Your task to perform on an android device: Add "energizer triple a" to the cart on walmart Image 0: 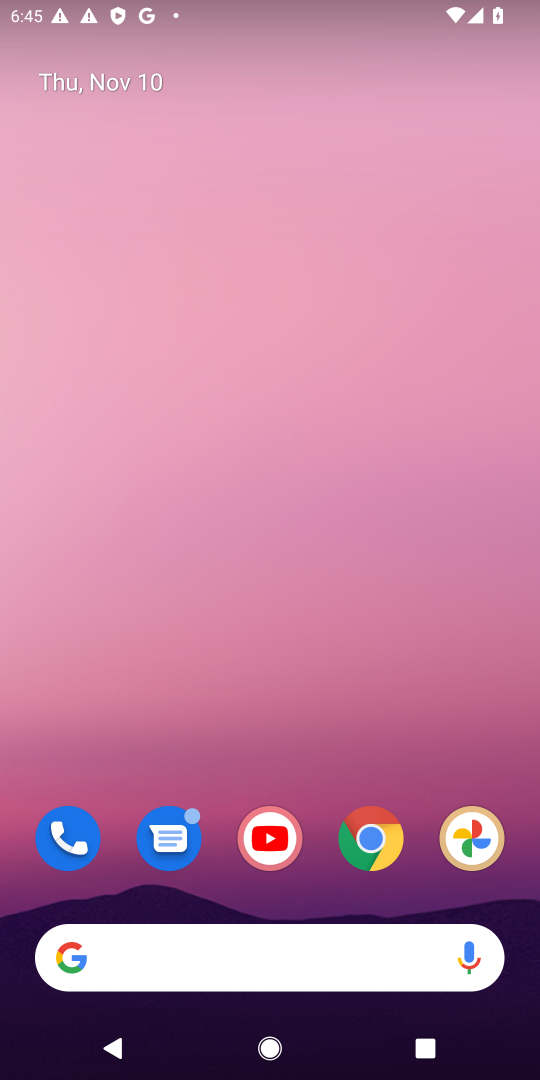
Step 0: drag from (328, 910) to (522, 127)
Your task to perform on an android device: Add "energizer triple a" to the cart on walmart Image 1: 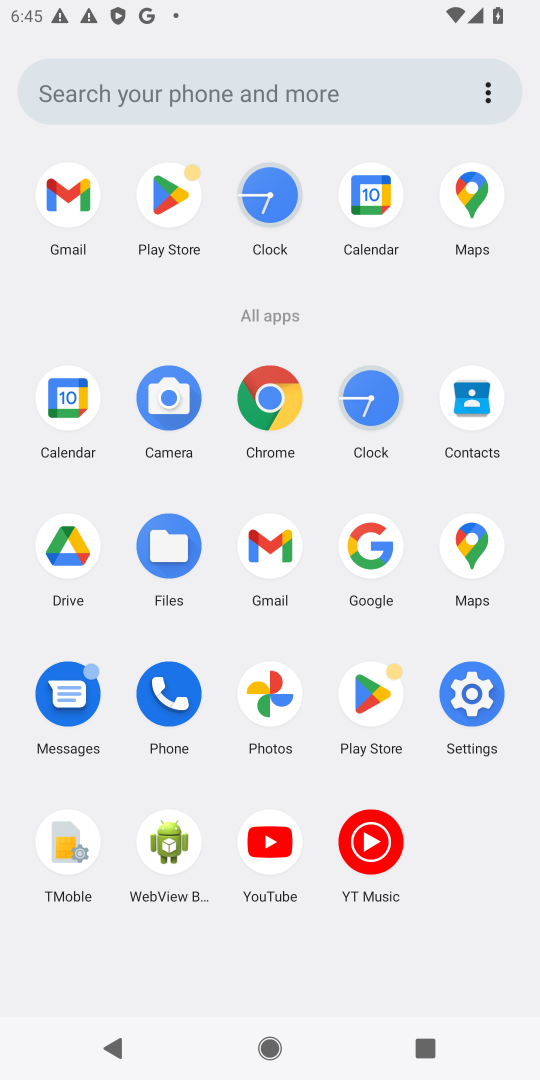
Step 1: click (274, 399)
Your task to perform on an android device: Add "energizer triple a" to the cart on walmart Image 2: 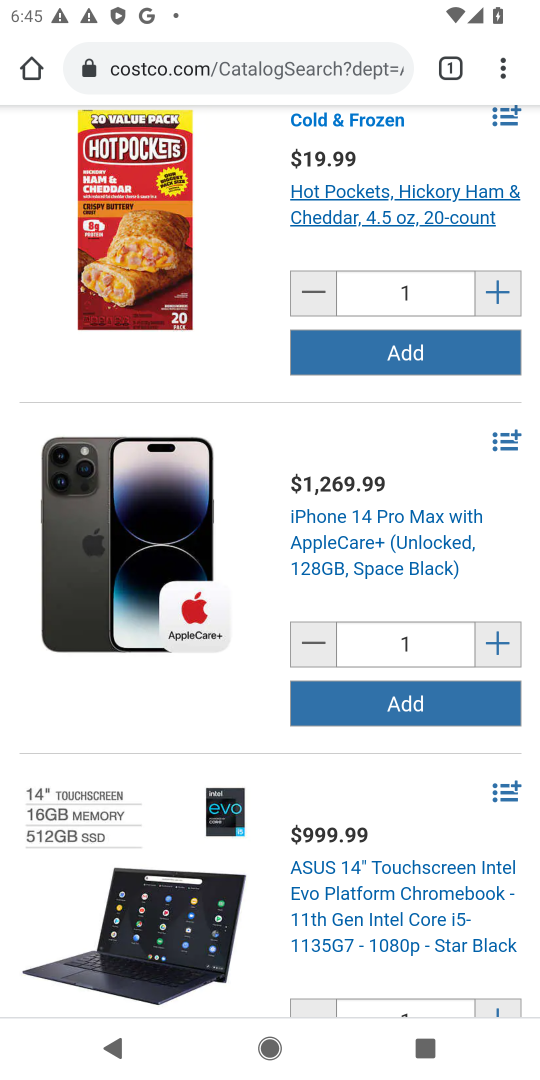
Step 2: click (271, 61)
Your task to perform on an android device: Add "energizer triple a" to the cart on walmart Image 3: 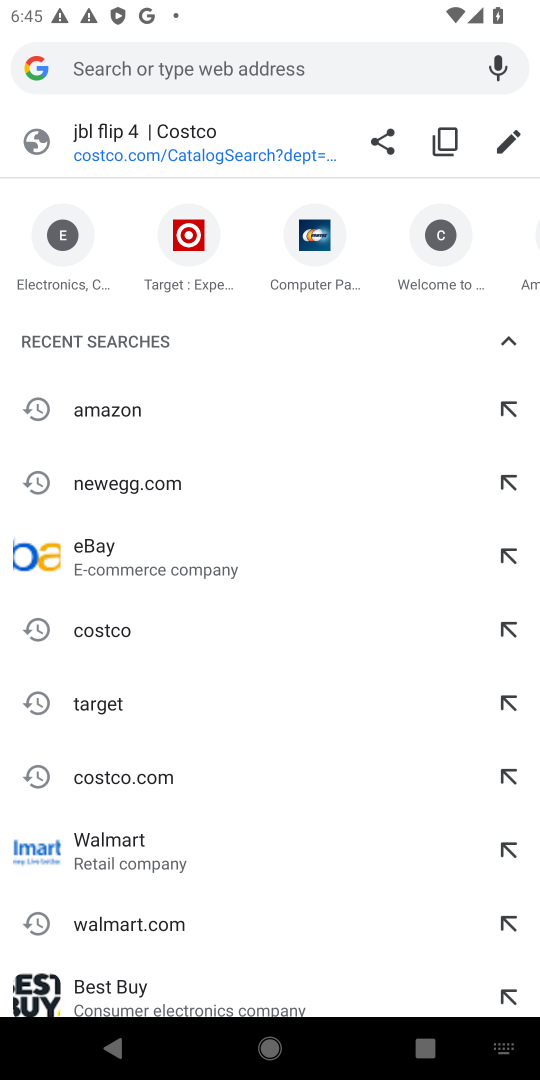
Step 3: type "walmart.com"
Your task to perform on an android device: Add "energizer triple a" to the cart on walmart Image 4: 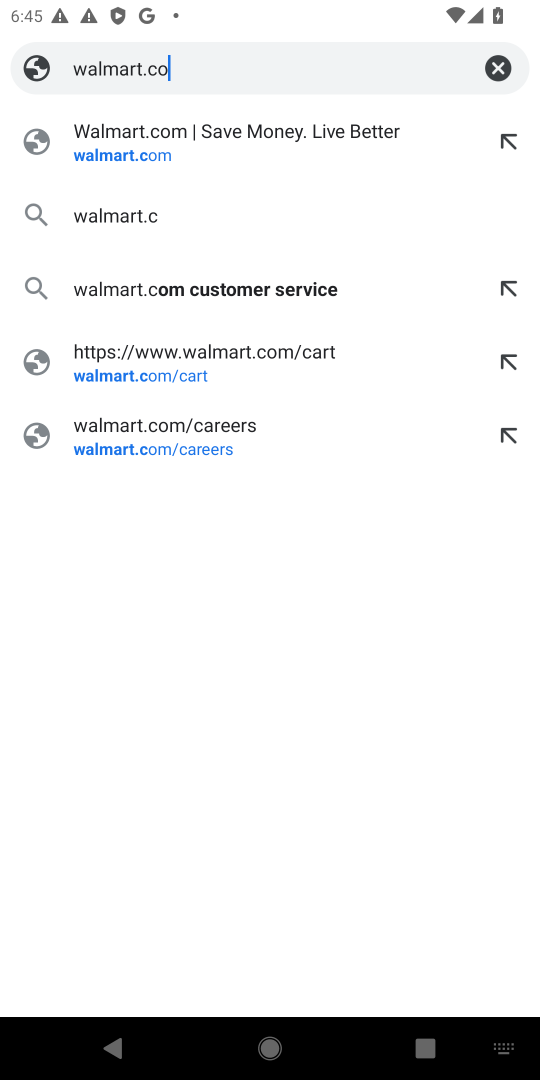
Step 4: press enter
Your task to perform on an android device: Add "energizer triple a" to the cart on walmart Image 5: 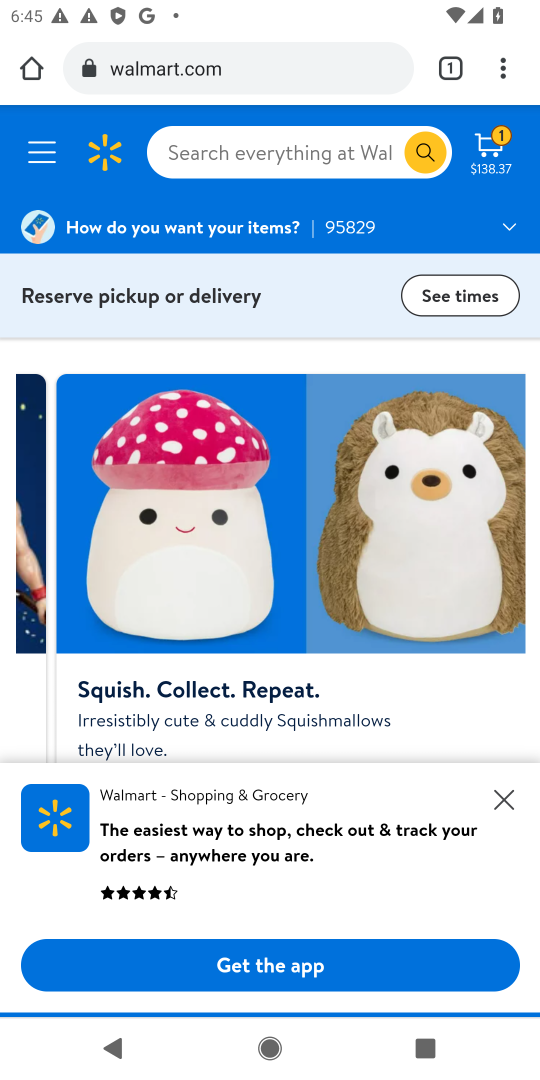
Step 5: click (265, 169)
Your task to perform on an android device: Add "energizer triple a" to the cart on walmart Image 6: 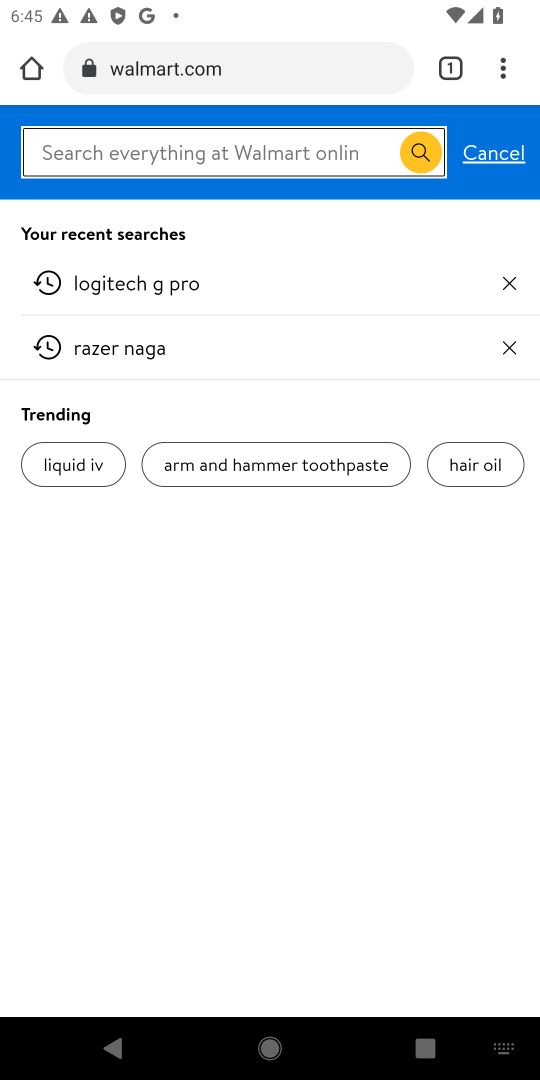
Step 6: type "energizer triple"
Your task to perform on an android device: Add "energizer triple a" to the cart on walmart Image 7: 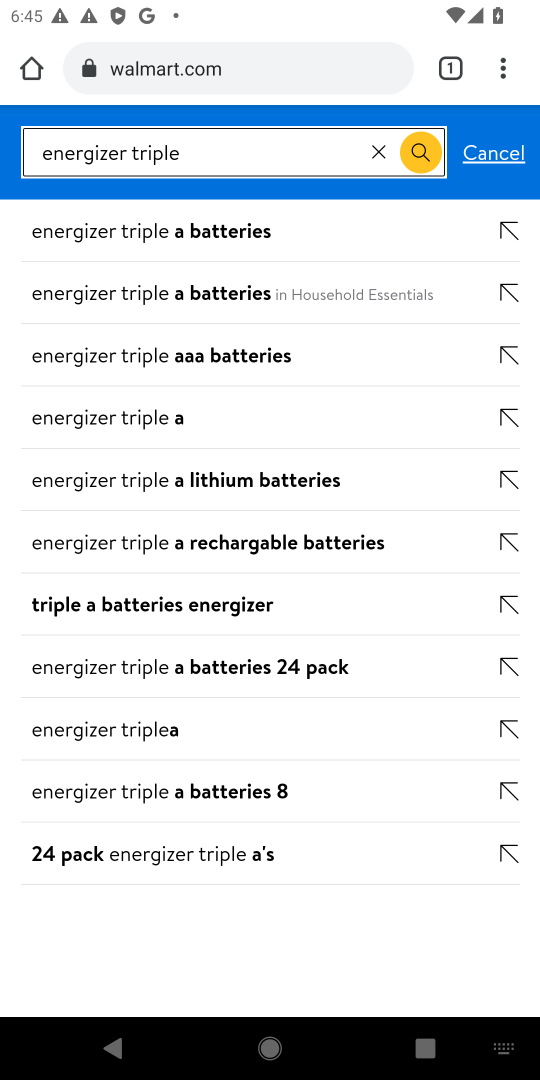
Step 7: press enter
Your task to perform on an android device: Add "energizer triple a" to the cart on walmart Image 8: 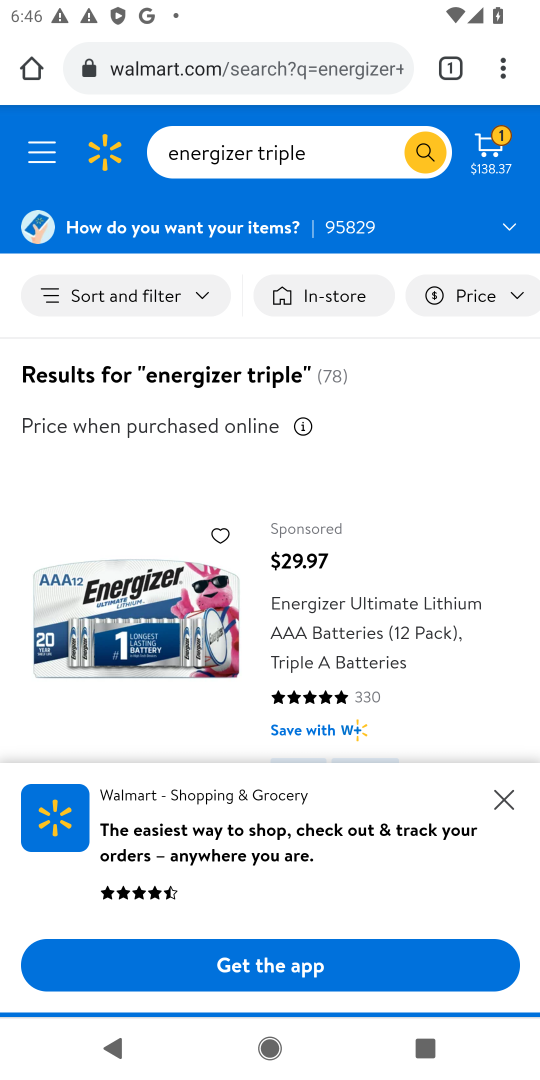
Step 8: drag from (375, 702) to (386, 47)
Your task to perform on an android device: Add "energizer triple a" to the cart on walmart Image 9: 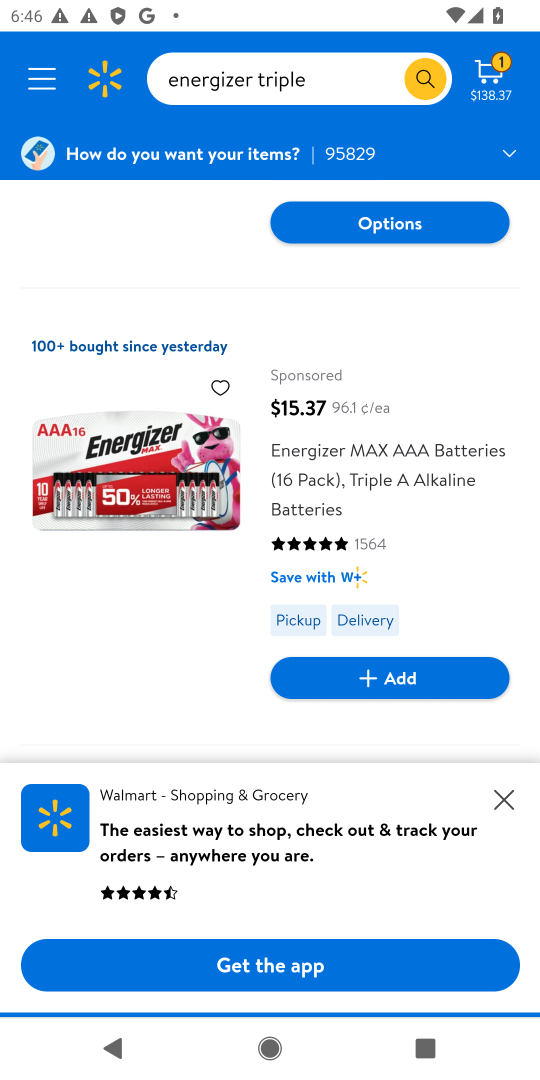
Step 9: drag from (221, 619) to (145, 7)
Your task to perform on an android device: Add "energizer triple a" to the cart on walmart Image 10: 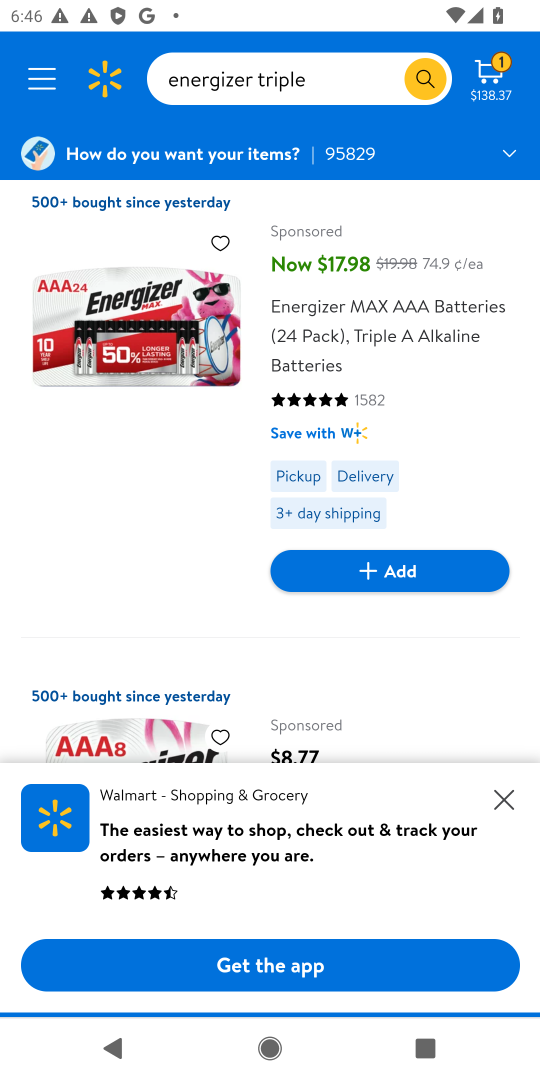
Step 10: drag from (183, 751) to (211, 182)
Your task to perform on an android device: Add "energizer triple a" to the cart on walmart Image 11: 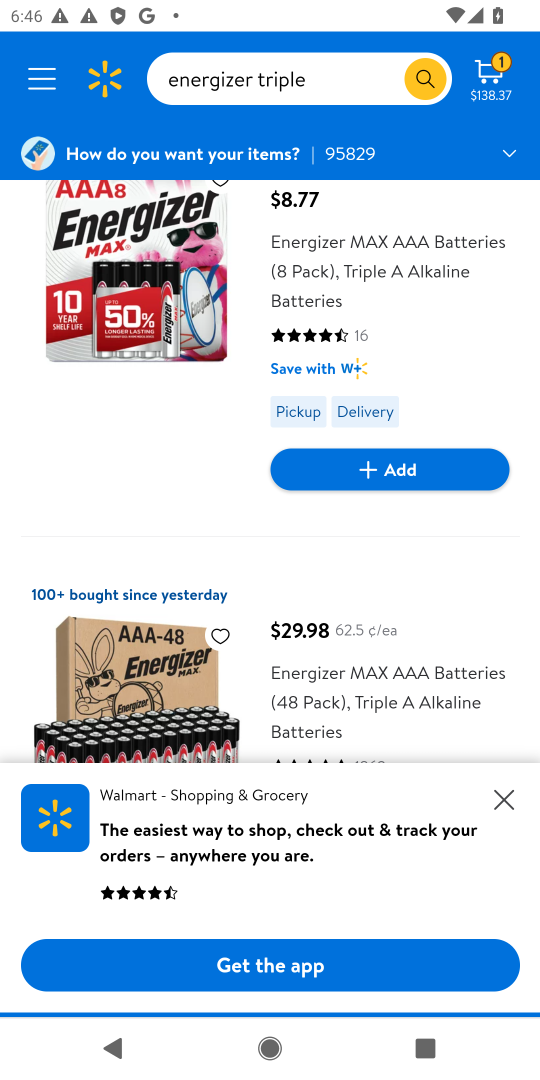
Step 11: drag from (193, 659) to (142, 832)
Your task to perform on an android device: Add "energizer triple a" to the cart on walmart Image 12: 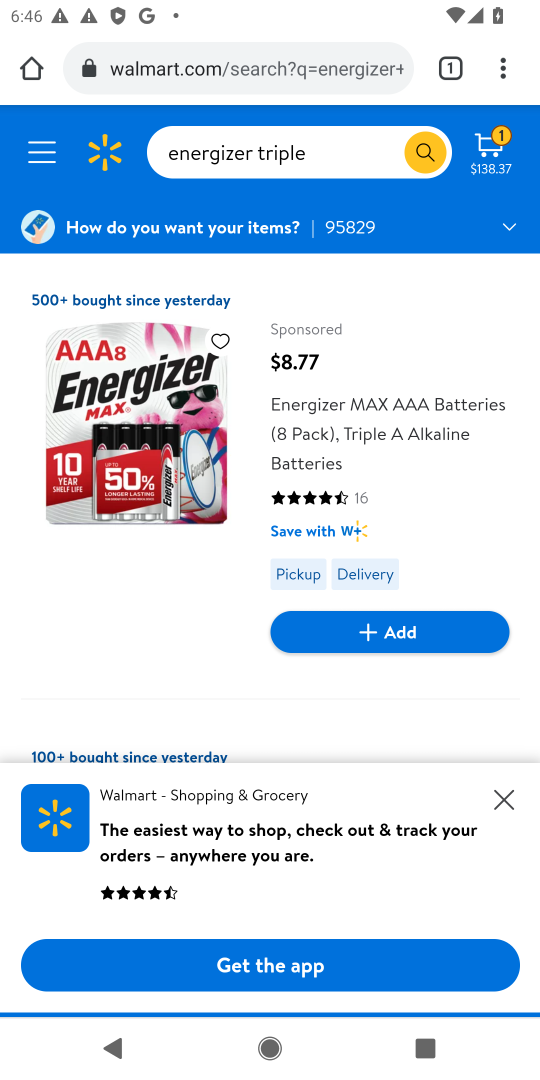
Step 12: drag from (195, 670) to (232, 118)
Your task to perform on an android device: Add "energizer triple a" to the cart on walmart Image 13: 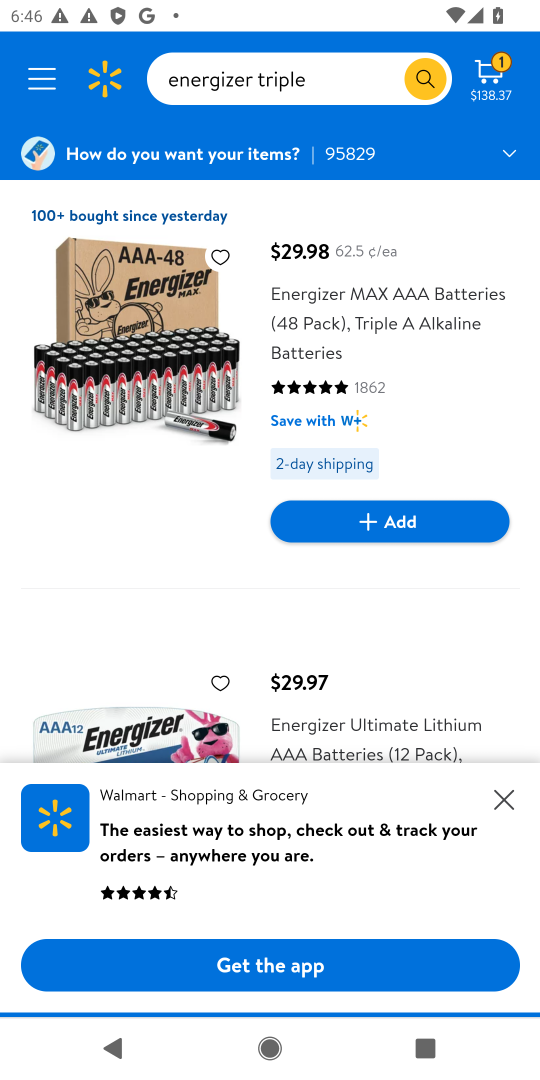
Step 13: drag from (147, 269) to (169, 478)
Your task to perform on an android device: Add "energizer triple a" to the cart on walmart Image 14: 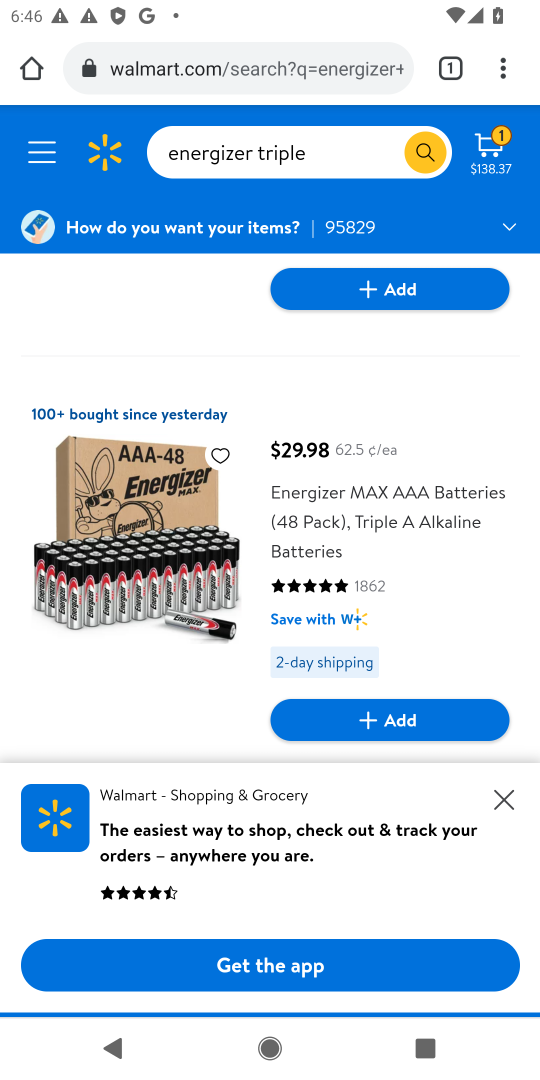
Step 14: click (448, 730)
Your task to perform on an android device: Add "energizer triple a" to the cart on walmart Image 15: 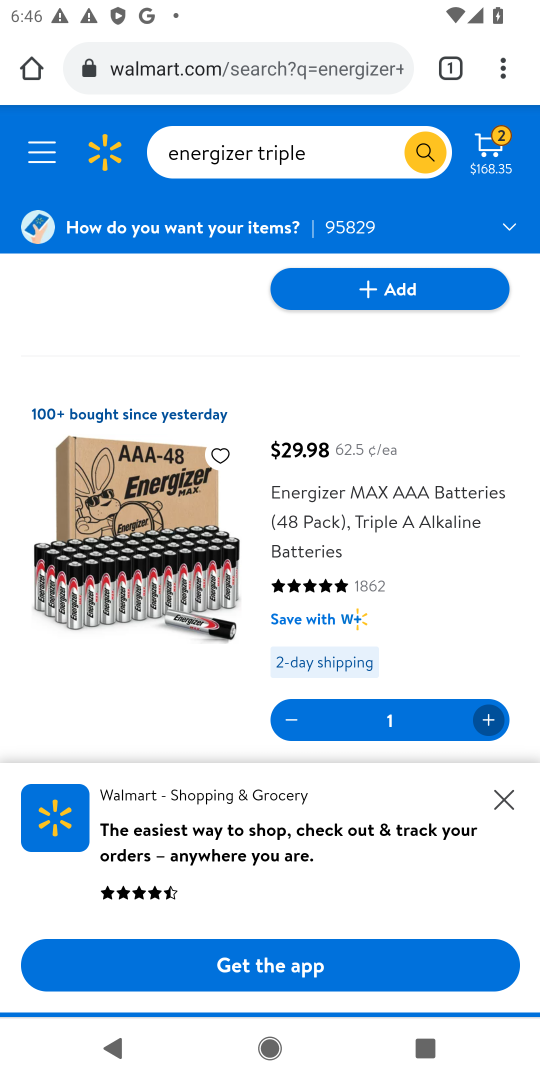
Step 15: task complete